Your task to perform on an android device: Open Reddit.com Image 0: 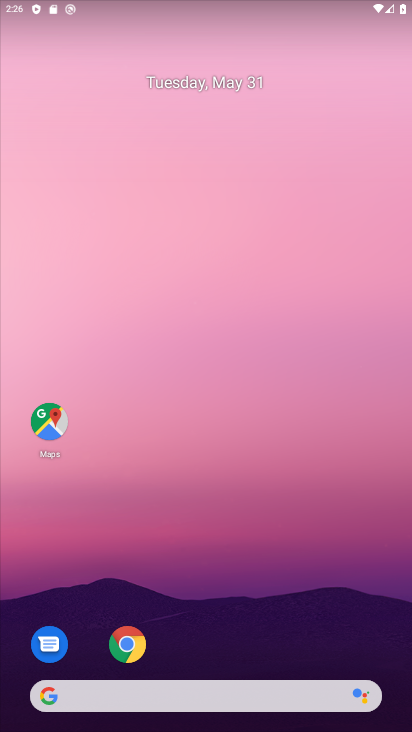
Step 0: click (233, 692)
Your task to perform on an android device: Open Reddit.com Image 1: 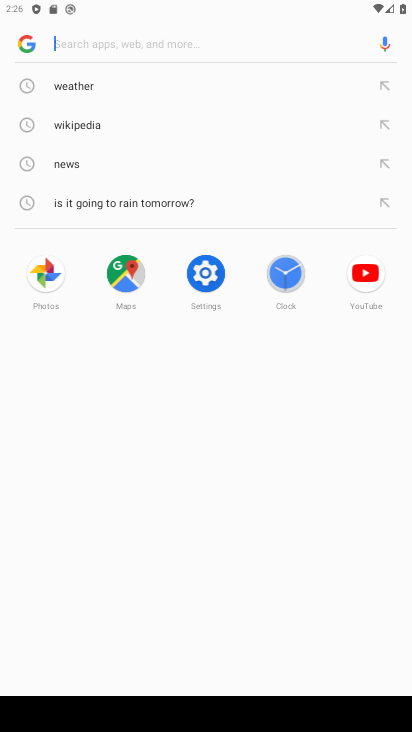
Step 1: click (146, 39)
Your task to perform on an android device: Open Reddit.com Image 2: 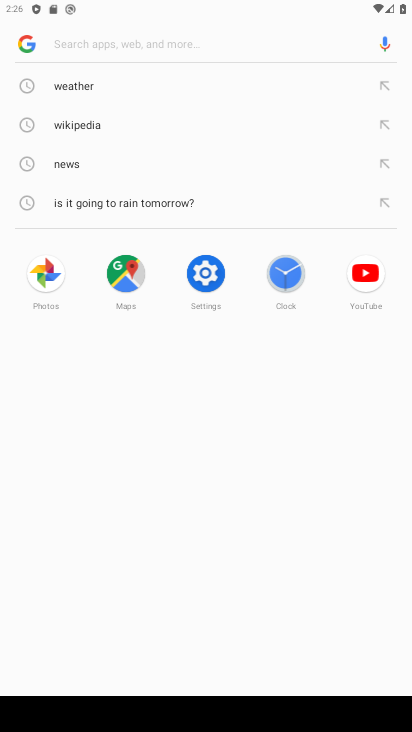
Step 2: type "Reddit.com"
Your task to perform on an android device: Open Reddit.com Image 3: 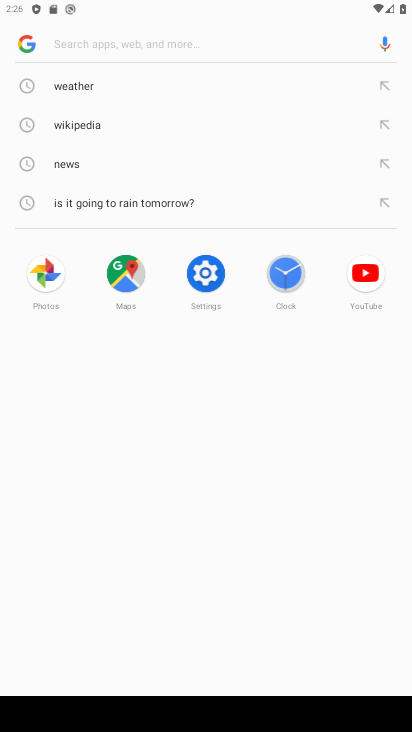
Step 3: click (193, 35)
Your task to perform on an android device: Open Reddit.com Image 4: 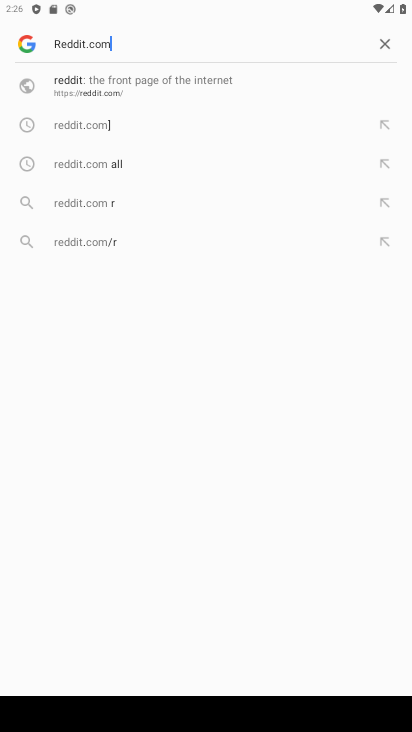
Step 4: click (131, 84)
Your task to perform on an android device: Open Reddit.com Image 5: 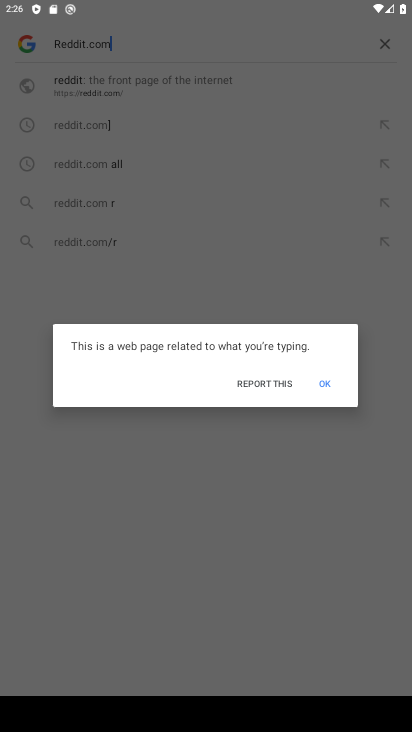
Step 5: click (131, 83)
Your task to perform on an android device: Open Reddit.com Image 6: 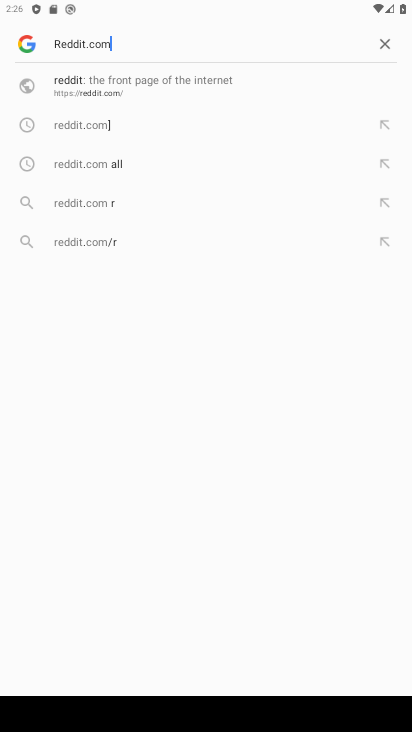
Step 6: click (131, 83)
Your task to perform on an android device: Open Reddit.com Image 7: 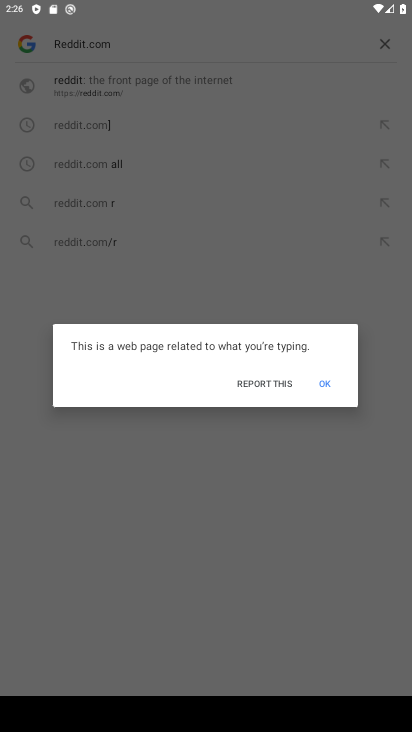
Step 7: click (77, 87)
Your task to perform on an android device: Open Reddit.com Image 8: 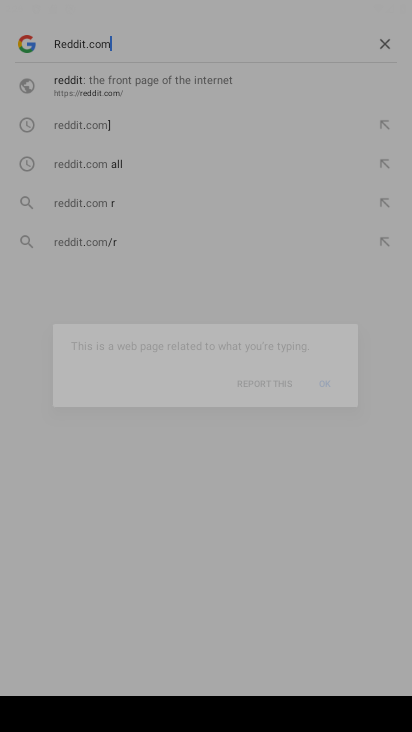
Step 8: click (77, 87)
Your task to perform on an android device: Open Reddit.com Image 9: 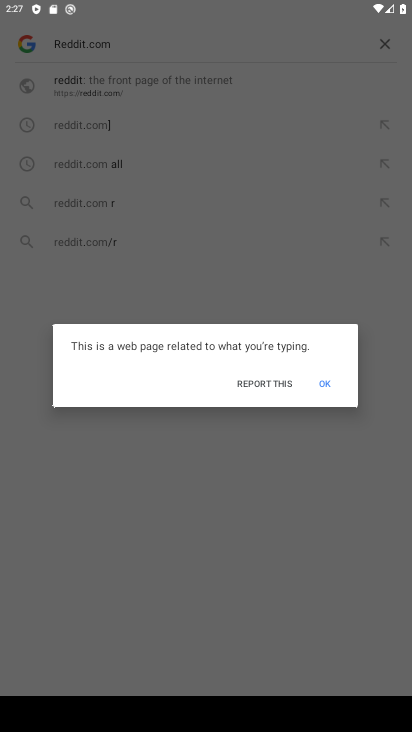
Step 9: click (319, 382)
Your task to perform on an android device: Open Reddit.com Image 10: 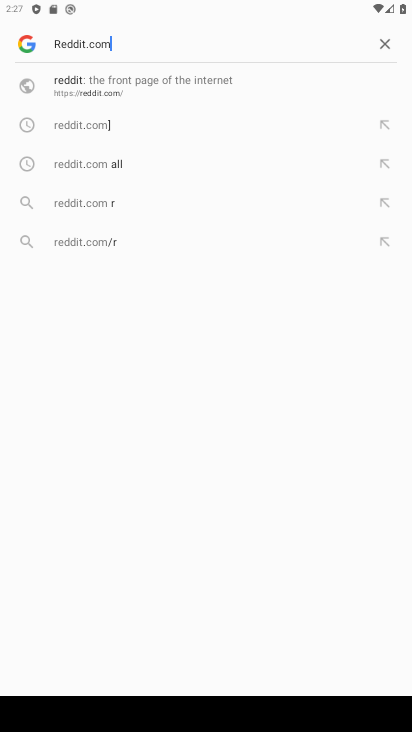
Step 10: click (96, 119)
Your task to perform on an android device: Open Reddit.com Image 11: 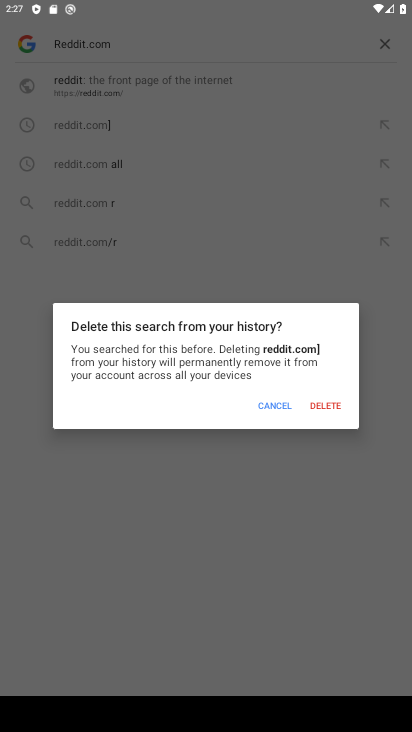
Step 11: click (328, 400)
Your task to perform on an android device: Open Reddit.com Image 12: 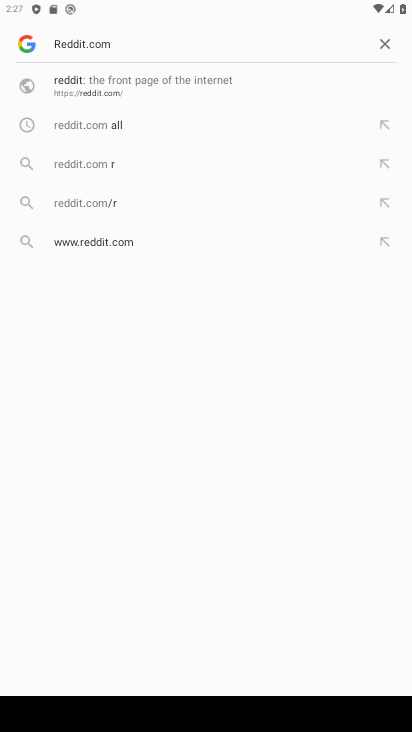
Step 12: click (115, 81)
Your task to perform on an android device: Open Reddit.com Image 13: 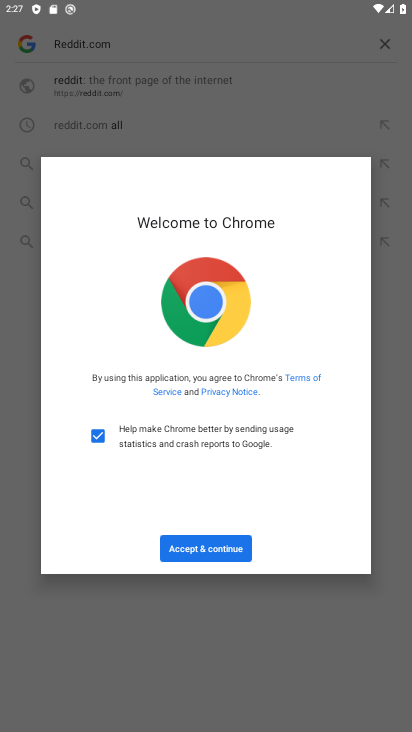
Step 13: click (233, 551)
Your task to perform on an android device: Open Reddit.com Image 14: 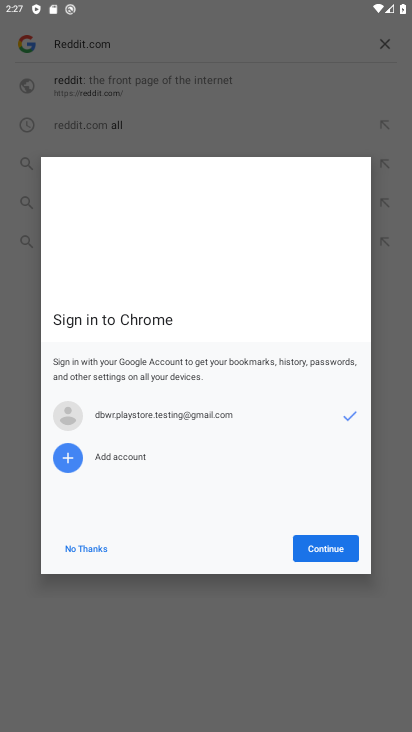
Step 14: click (309, 538)
Your task to perform on an android device: Open Reddit.com Image 15: 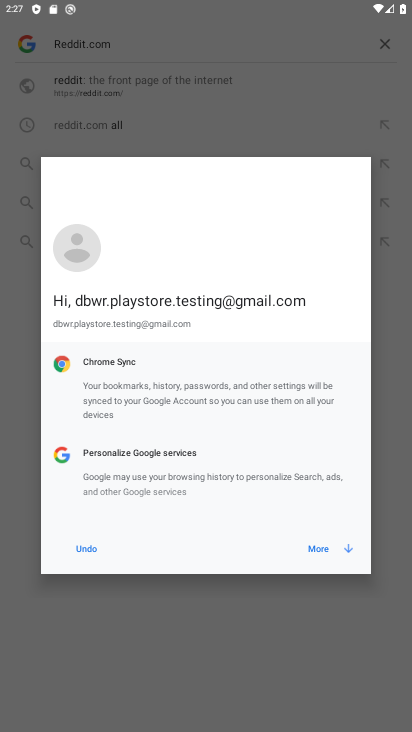
Step 15: click (330, 547)
Your task to perform on an android device: Open Reddit.com Image 16: 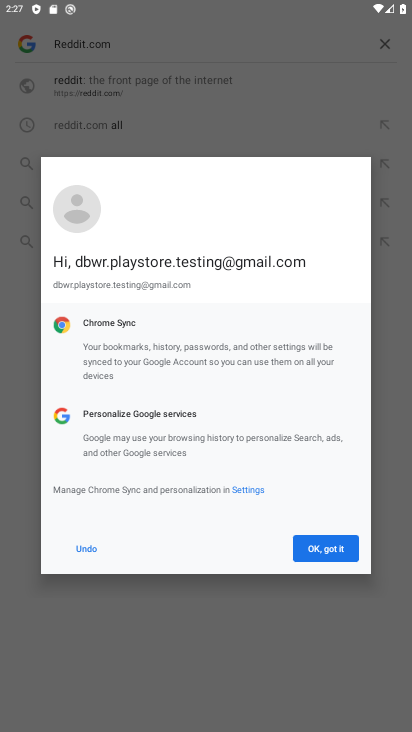
Step 16: click (323, 545)
Your task to perform on an android device: Open Reddit.com Image 17: 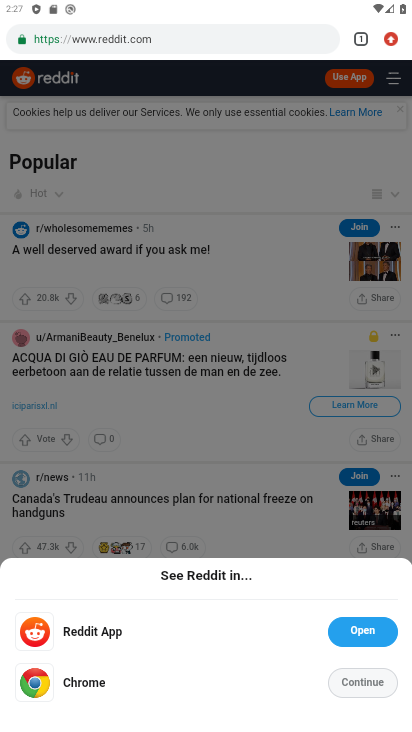
Step 17: task complete